Your task to perform on an android device: Go to Android settings Image 0: 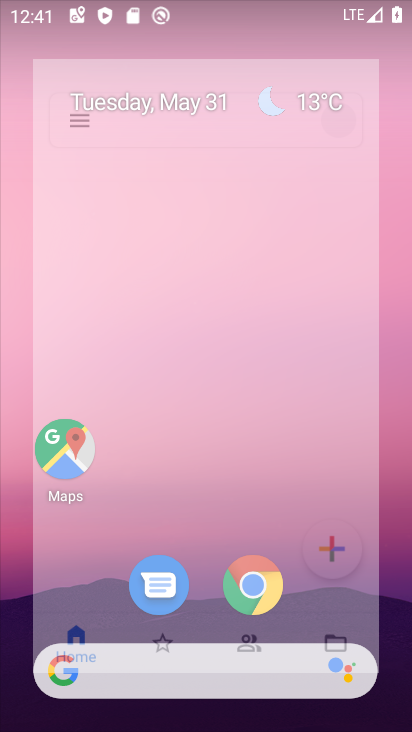
Step 0: click (175, 675)
Your task to perform on an android device: Go to Android settings Image 1: 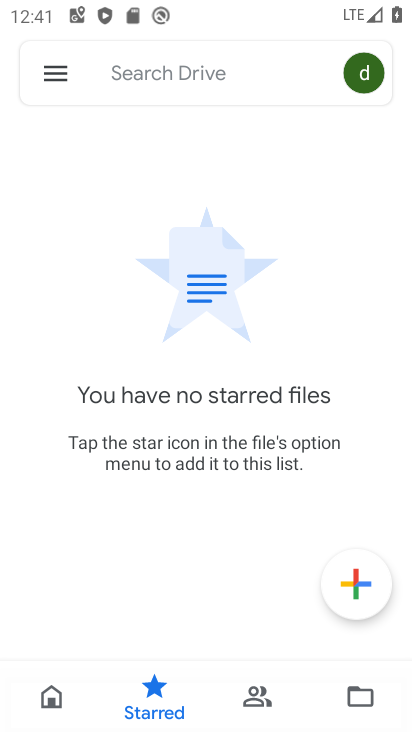
Step 1: press home button
Your task to perform on an android device: Go to Android settings Image 2: 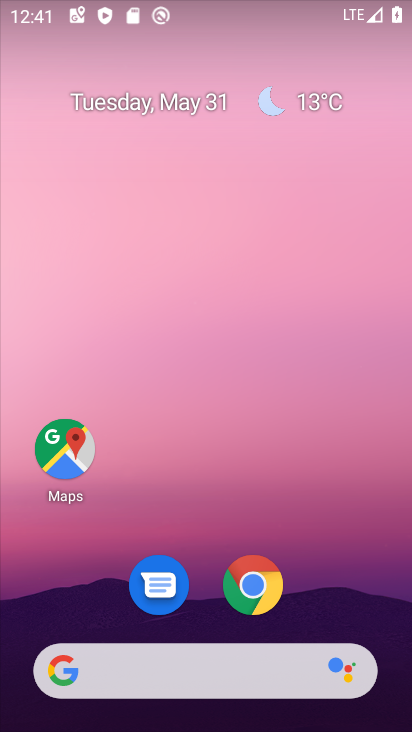
Step 2: drag from (225, 495) to (221, 37)
Your task to perform on an android device: Go to Android settings Image 3: 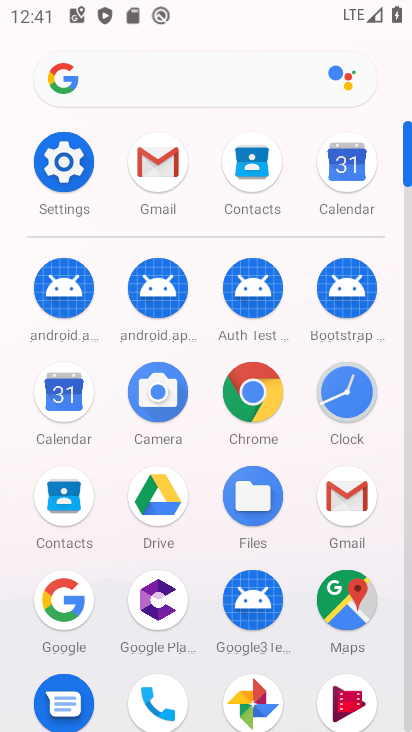
Step 3: click (77, 166)
Your task to perform on an android device: Go to Android settings Image 4: 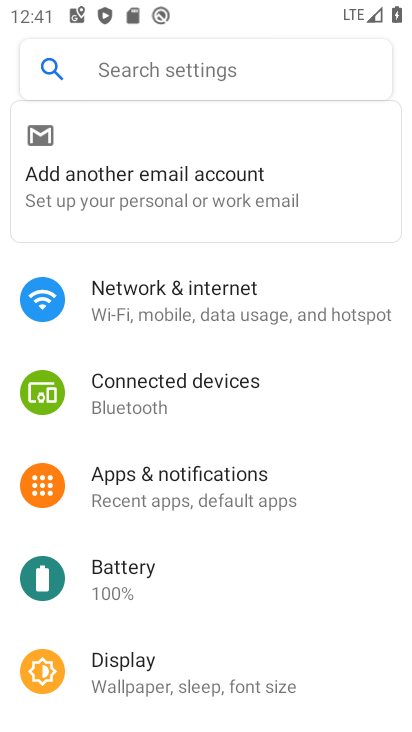
Step 4: drag from (237, 584) to (271, 2)
Your task to perform on an android device: Go to Android settings Image 5: 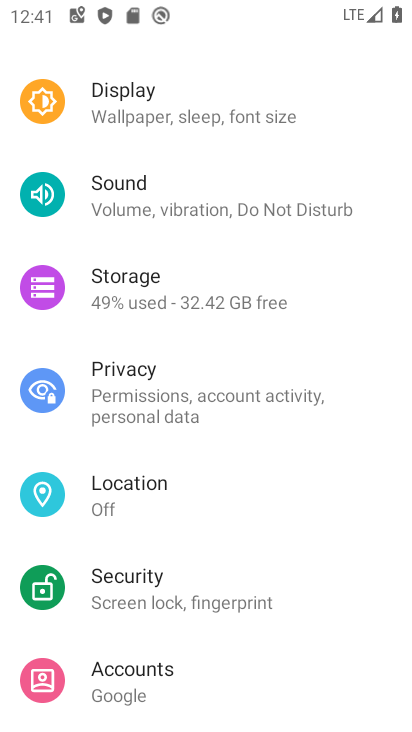
Step 5: drag from (266, 562) to (278, 17)
Your task to perform on an android device: Go to Android settings Image 6: 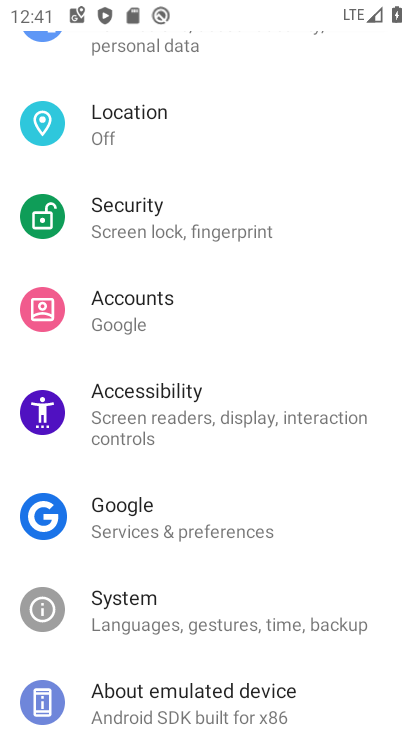
Step 6: click (241, 695)
Your task to perform on an android device: Go to Android settings Image 7: 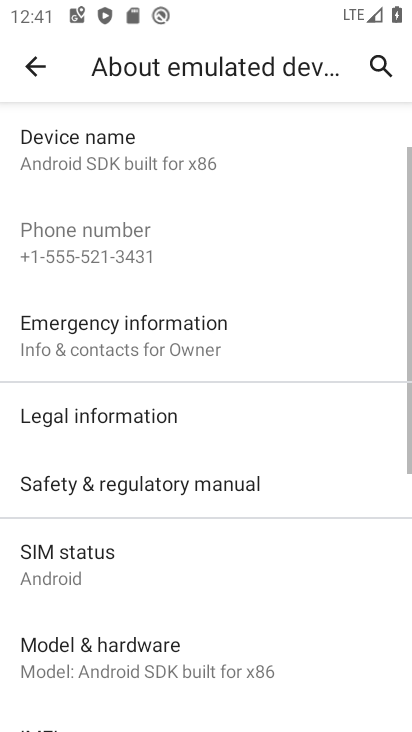
Step 7: task complete